Your task to perform on an android device: turn pop-ups off in chrome Image 0: 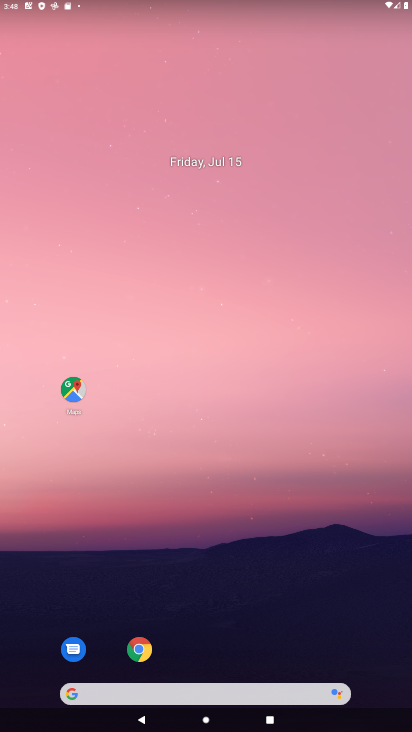
Step 0: drag from (266, 614) to (234, 42)
Your task to perform on an android device: turn pop-ups off in chrome Image 1: 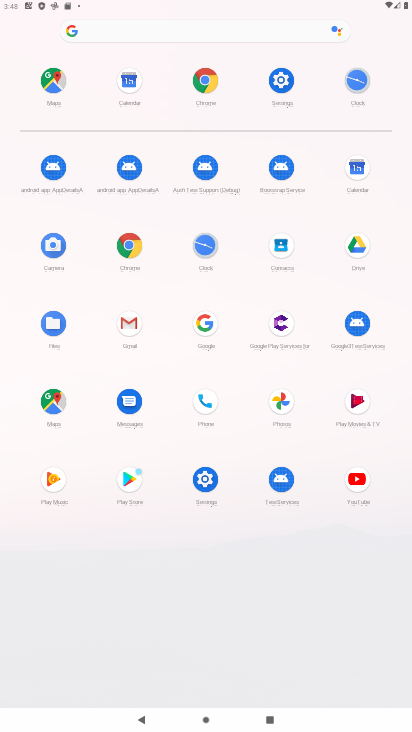
Step 1: click (206, 80)
Your task to perform on an android device: turn pop-ups off in chrome Image 2: 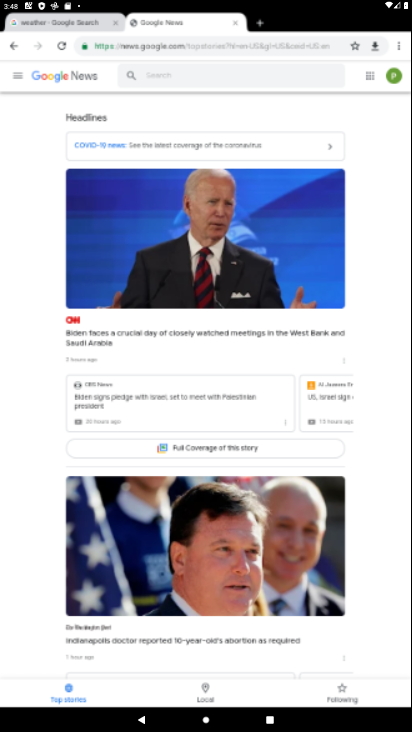
Step 2: drag from (397, 48) to (308, 302)
Your task to perform on an android device: turn pop-ups off in chrome Image 3: 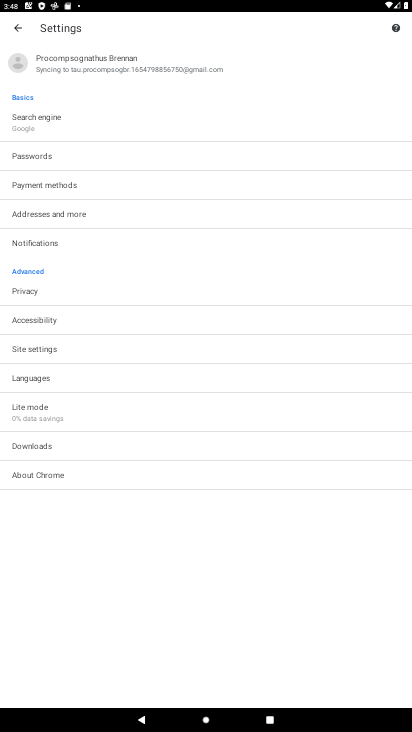
Step 3: click (51, 351)
Your task to perform on an android device: turn pop-ups off in chrome Image 4: 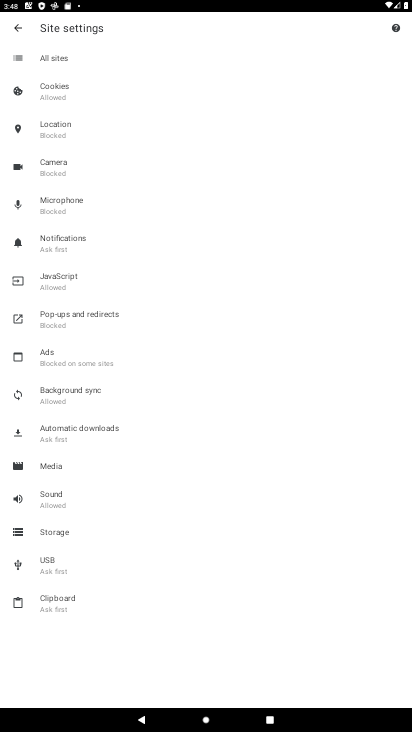
Step 4: click (86, 324)
Your task to perform on an android device: turn pop-ups off in chrome Image 5: 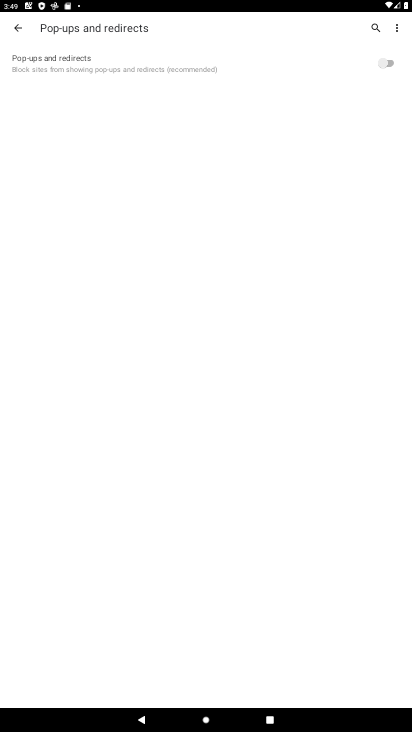
Step 5: task complete